Your task to perform on an android device: turn on sleep mode Image 0: 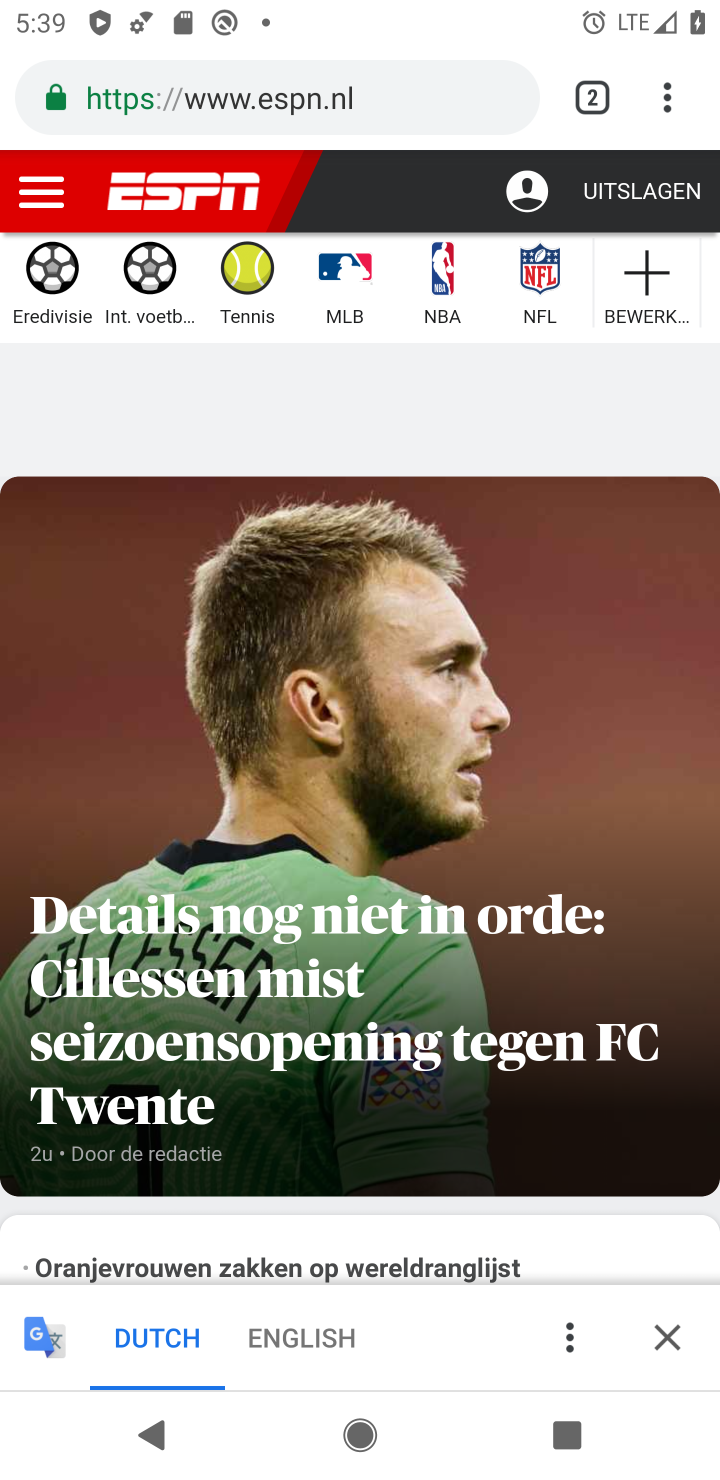
Step 0: press home button
Your task to perform on an android device: turn on sleep mode Image 1: 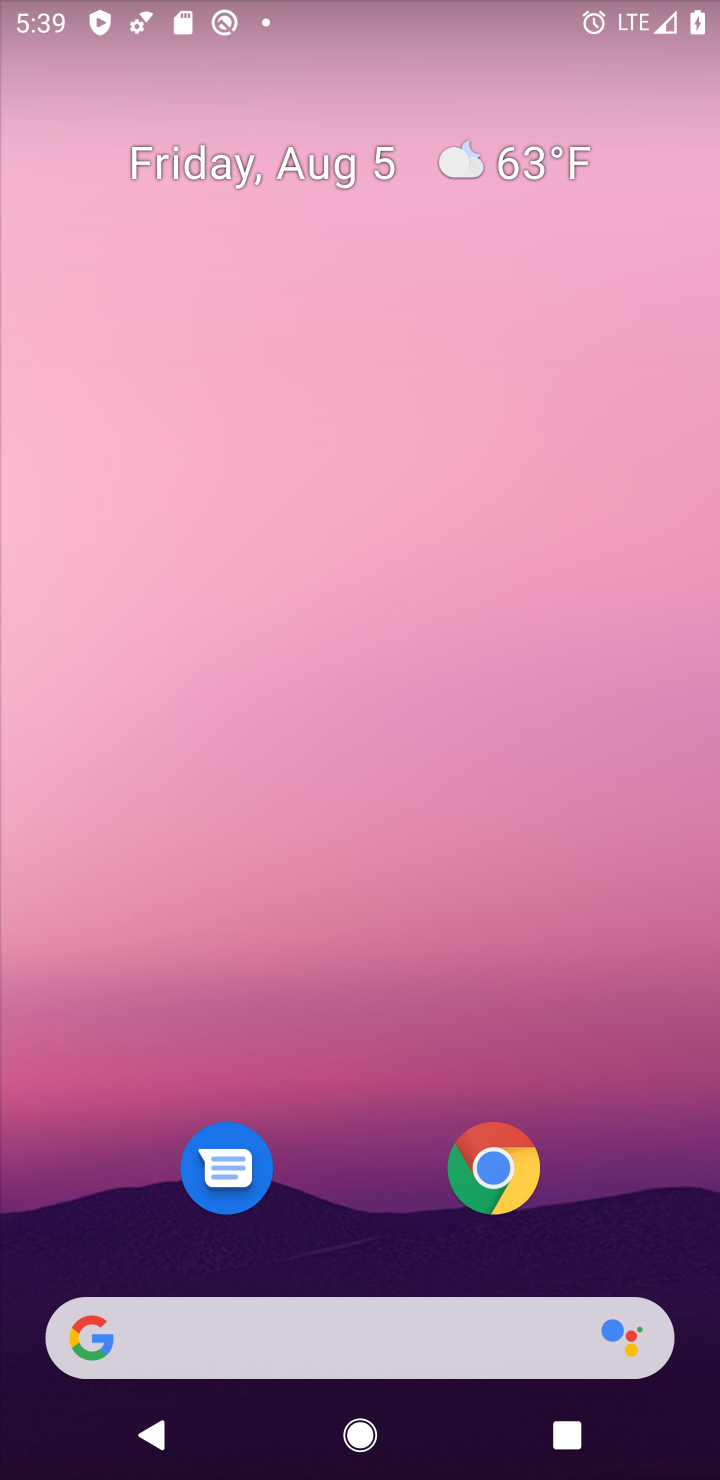
Step 1: drag from (312, 1294) to (354, 129)
Your task to perform on an android device: turn on sleep mode Image 2: 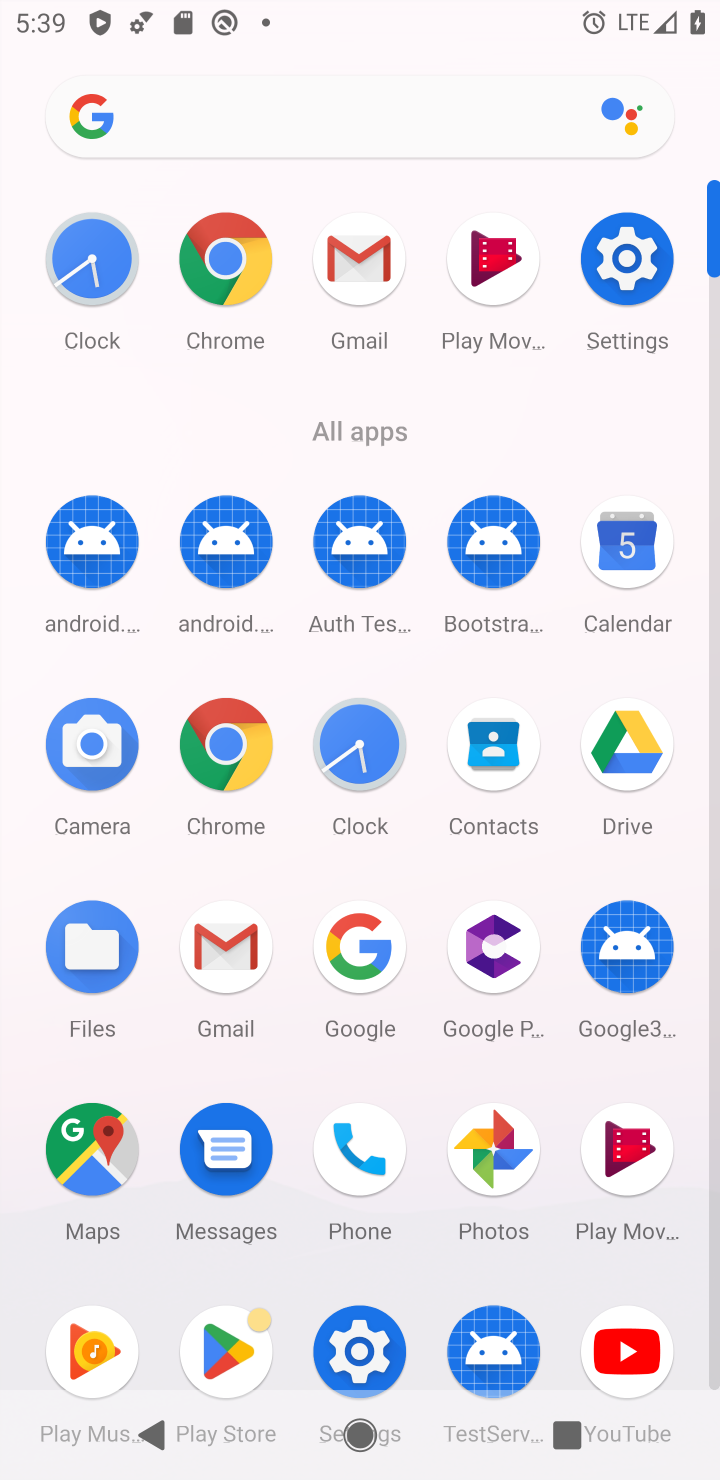
Step 2: click (645, 277)
Your task to perform on an android device: turn on sleep mode Image 3: 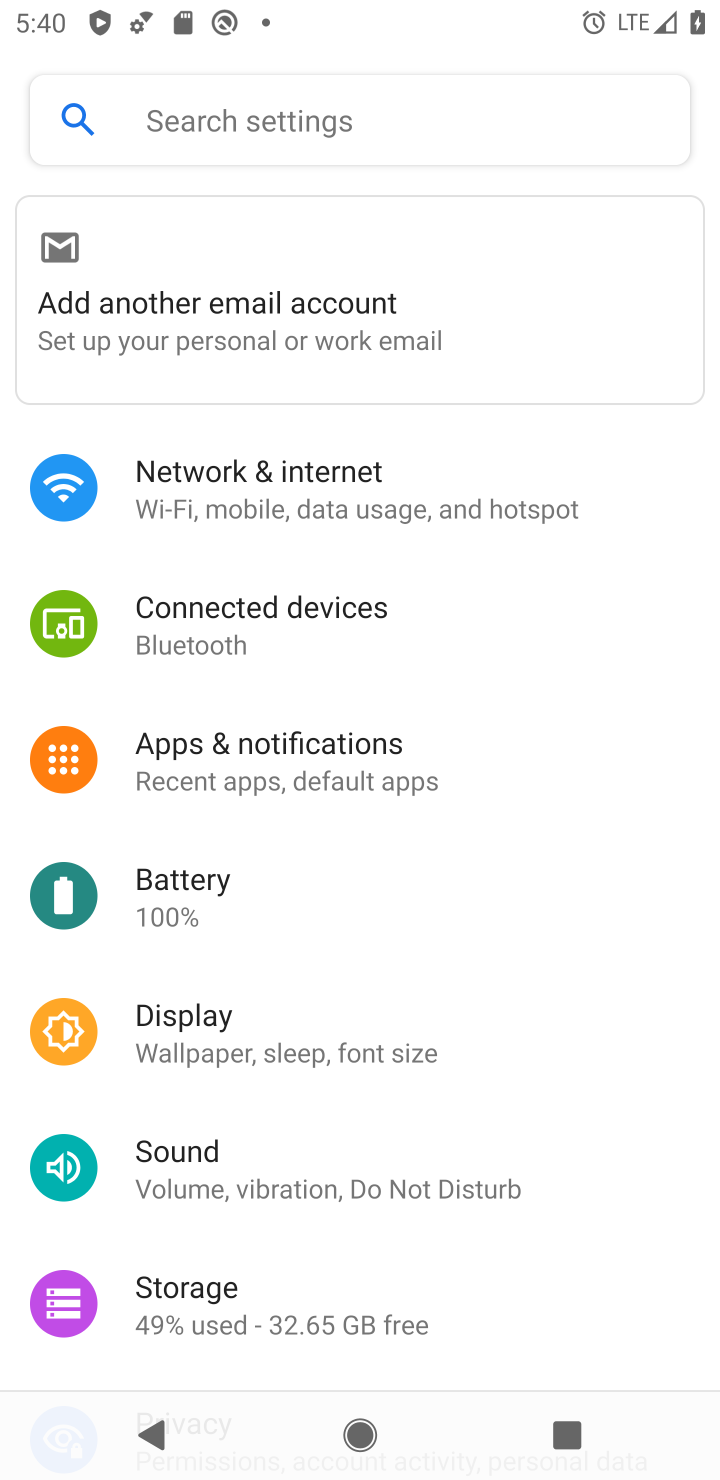
Step 3: click (191, 1025)
Your task to perform on an android device: turn on sleep mode Image 4: 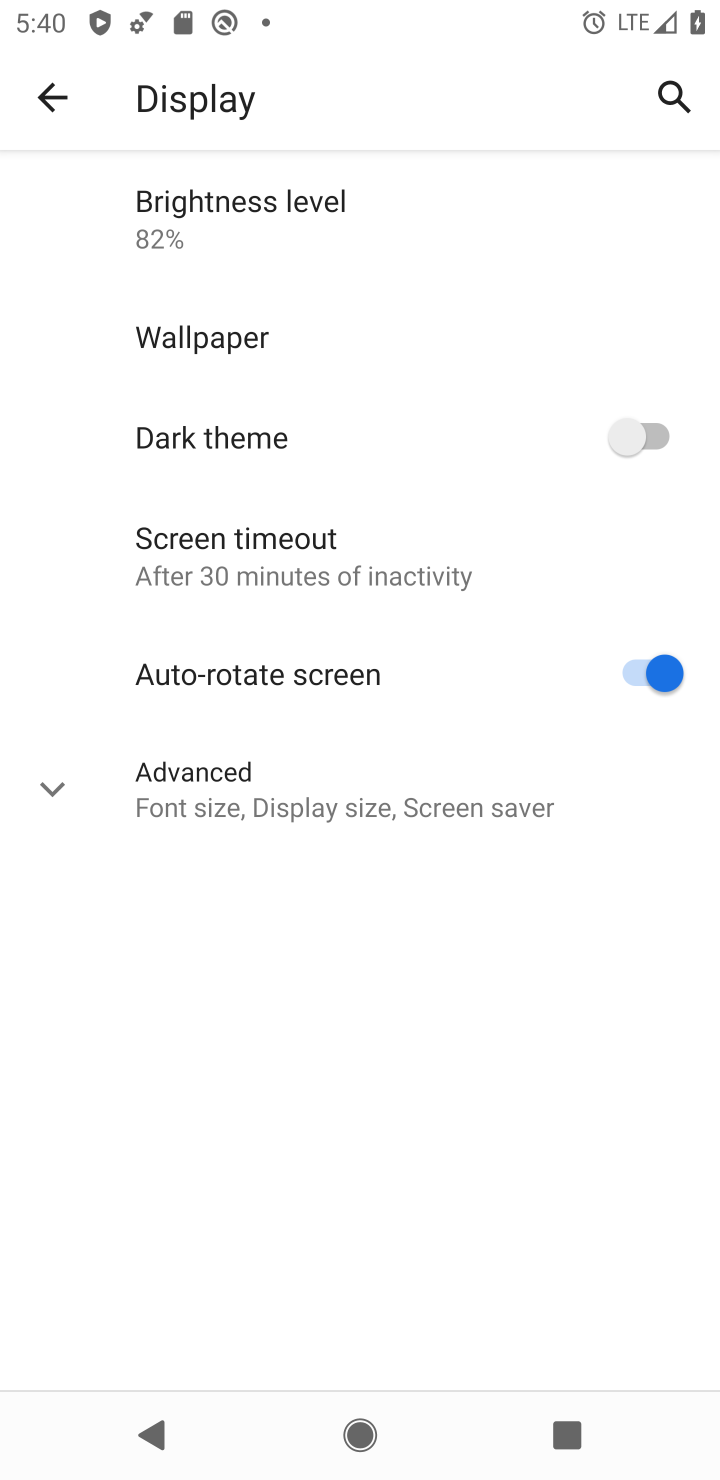
Step 4: task complete